Your task to perform on an android device: Open wifi settings Image 0: 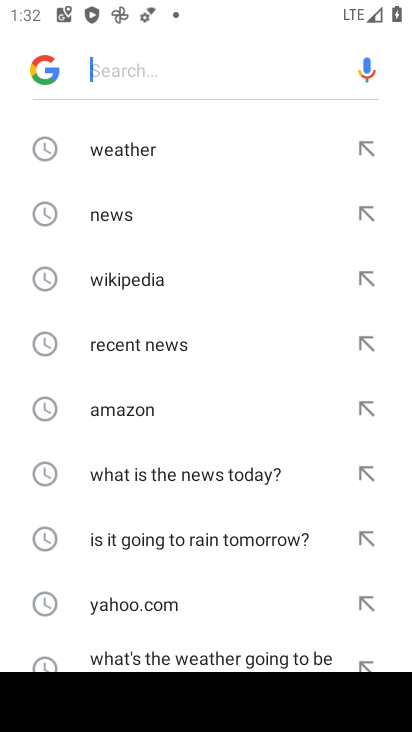
Step 0: press home button
Your task to perform on an android device: Open wifi settings Image 1: 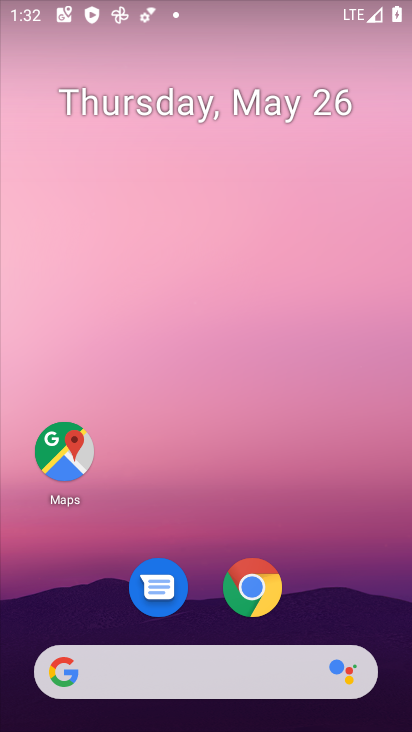
Step 1: drag from (361, 598) to (365, 77)
Your task to perform on an android device: Open wifi settings Image 2: 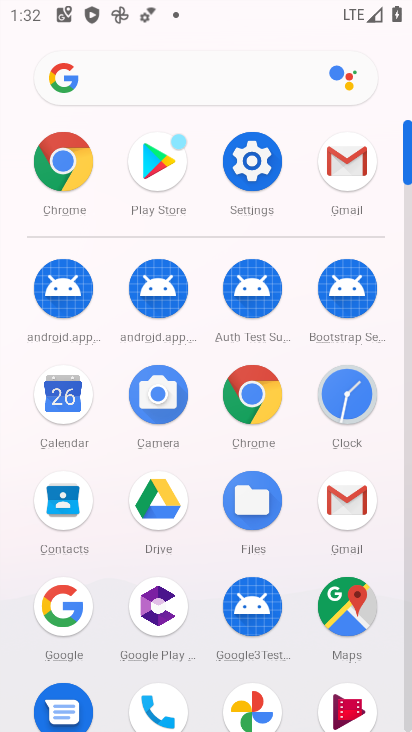
Step 2: click (257, 169)
Your task to perform on an android device: Open wifi settings Image 3: 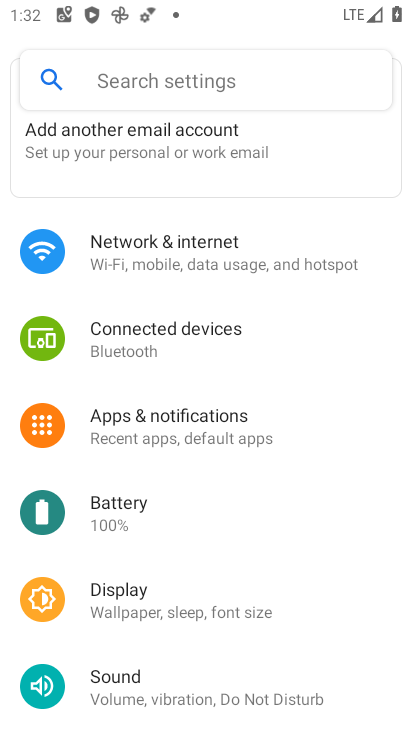
Step 3: drag from (333, 540) to (338, 423)
Your task to perform on an android device: Open wifi settings Image 4: 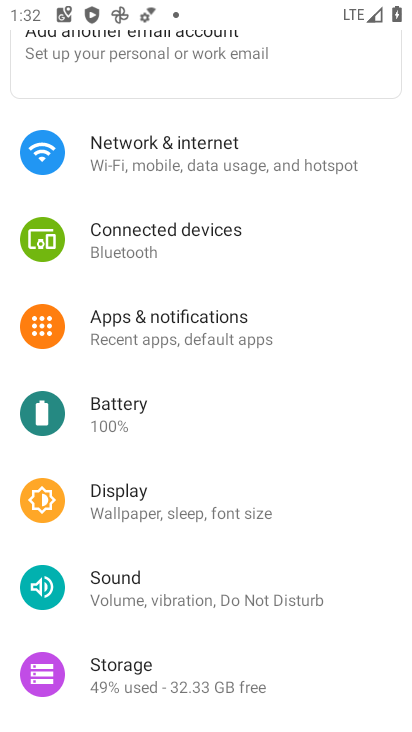
Step 4: drag from (343, 590) to (353, 423)
Your task to perform on an android device: Open wifi settings Image 5: 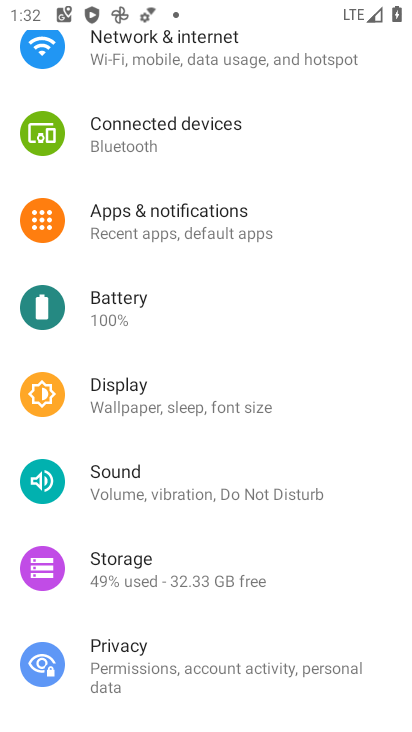
Step 5: drag from (356, 603) to (371, 454)
Your task to perform on an android device: Open wifi settings Image 6: 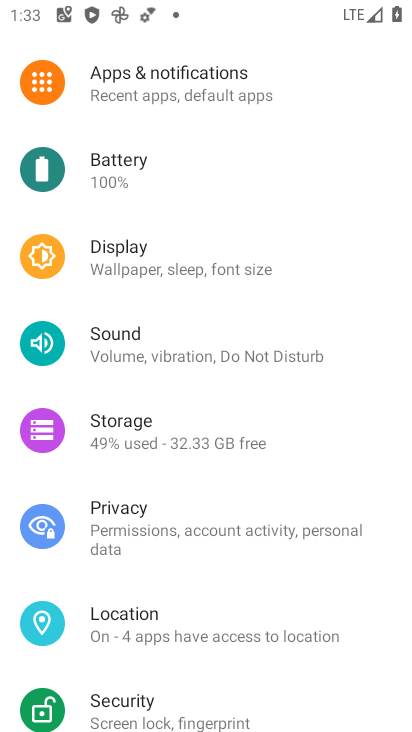
Step 6: drag from (371, 648) to (377, 505)
Your task to perform on an android device: Open wifi settings Image 7: 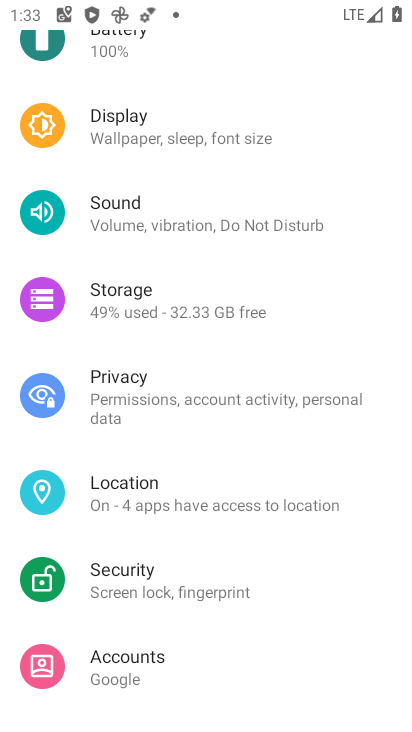
Step 7: drag from (381, 618) to (372, 487)
Your task to perform on an android device: Open wifi settings Image 8: 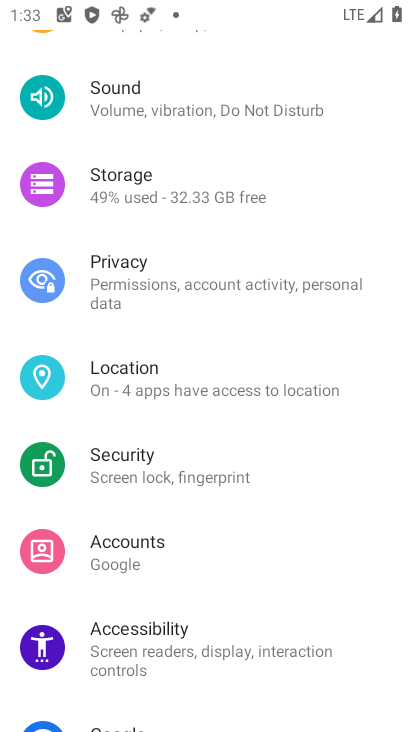
Step 8: drag from (355, 587) to (350, 413)
Your task to perform on an android device: Open wifi settings Image 9: 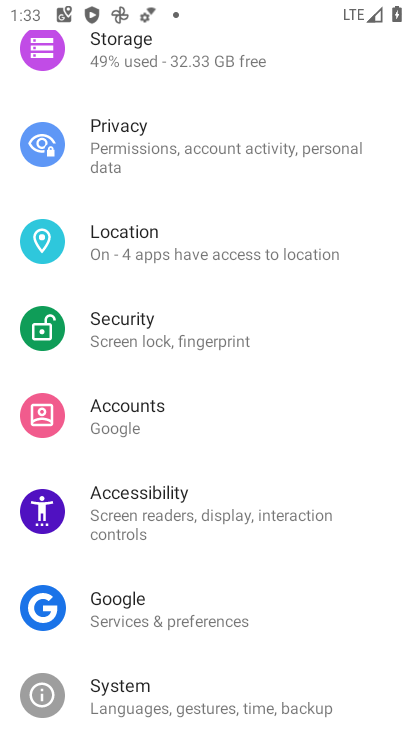
Step 9: drag from (363, 594) to (342, 458)
Your task to perform on an android device: Open wifi settings Image 10: 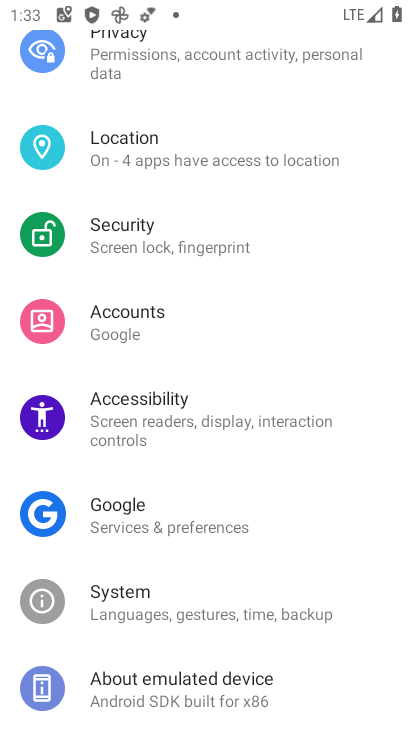
Step 10: drag from (347, 609) to (348, 461)
Your task to perform on an android device: Open wifi settings Image 11: 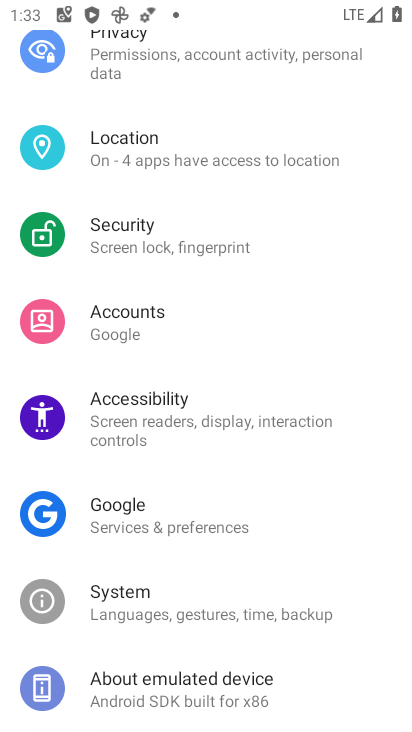
Step 11: drag from (362, 345) to (358, 435)
Your task to perform on an android device: Open wifi settings Image 12: 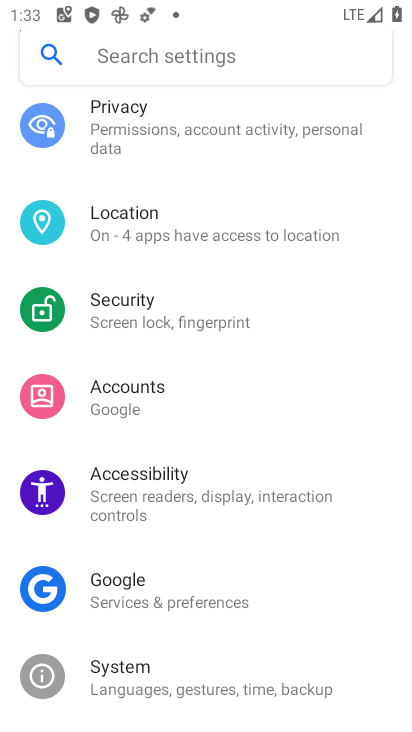
Step 12: drag from (361, 318) to (361, 419)
Your task to perform on an android device: Open wifi settings Image 13: 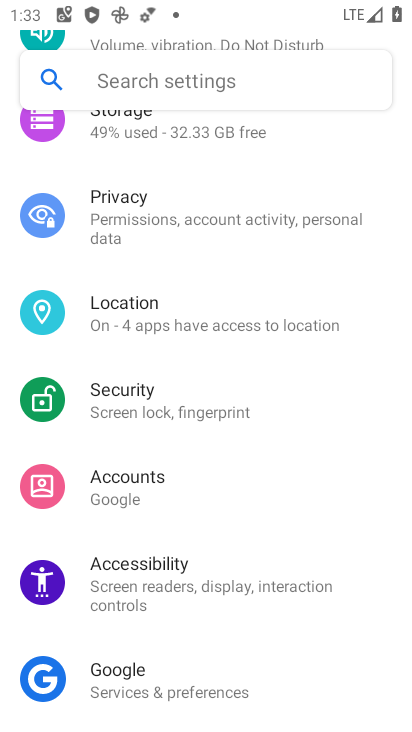
Step 13: drag from (361, 295) to (360, 381)
Your task to perform on an android device: Open wifi settings Image 14: 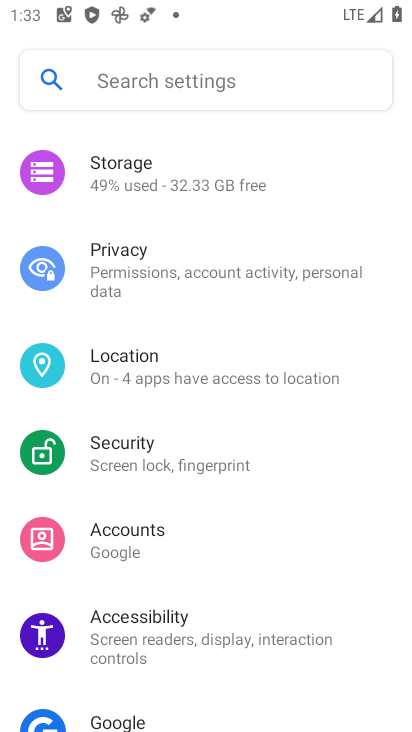
Step 14: drag from (366, 244) to (368, 371)
Your task to perform on an android device: Open wifi settings Image 15: 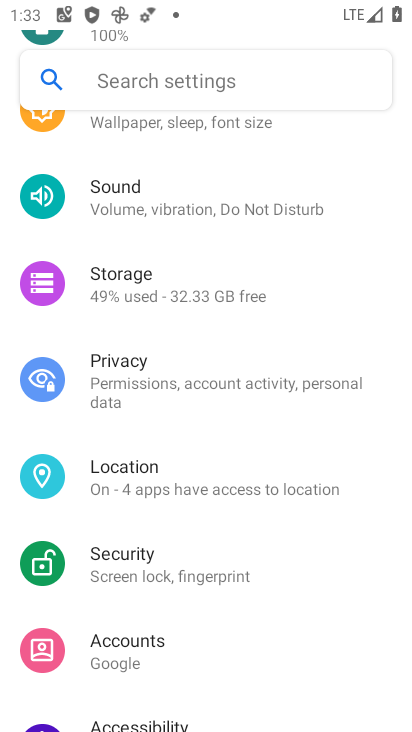
Step 15: drag from (369, 250) to (358, 361)
Your task to perform on an android device: Open wifi settings Image 16: 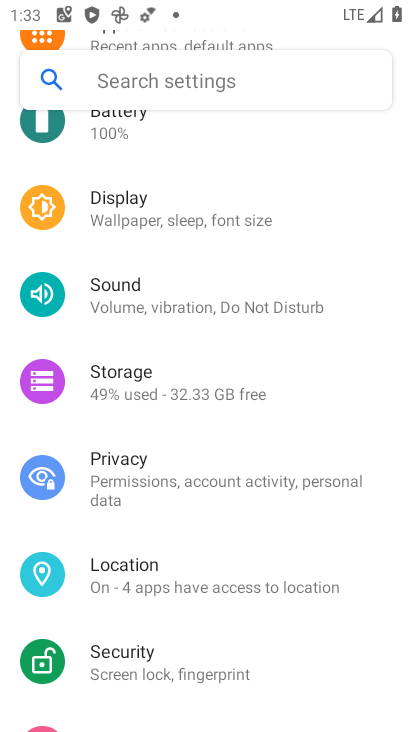
Step 16: drag from (361, 244) to (344, 363)
Your task to perform on an android device: Open wifi settings Image 17: 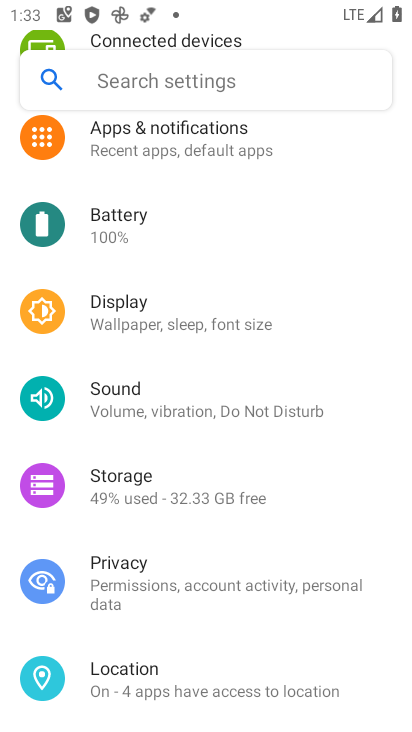
Step 17: drag from (339, 226) to (335, 329)
Your task to perform on an android device: Open wifi settings Image 18: 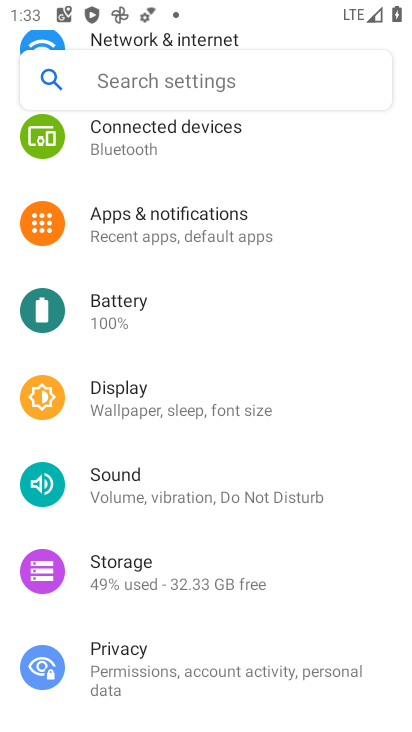
Step 18: drag from (330, 210) to (333, 307)
Your task to perform on an android device: Open wifi settings Image 19: 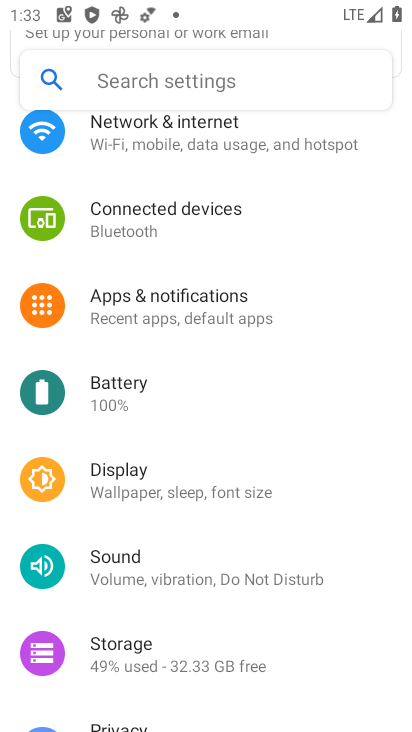
Step 19: drag from (329, 207) to (325, 331)
Your task to perform on an android device: Open wifi settings Image 20: 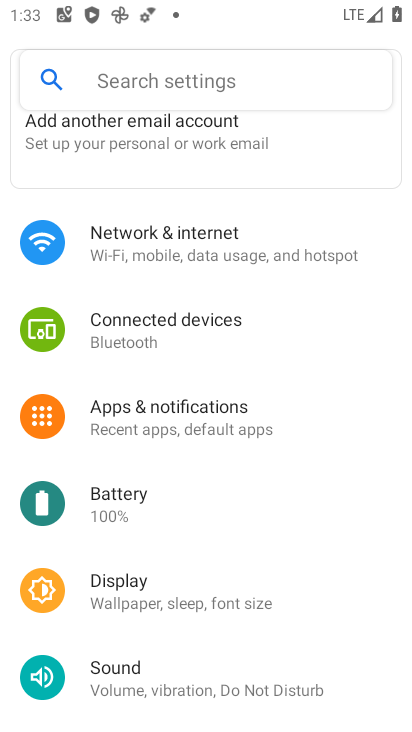
Step 20: drag from (318, 198) to (319, 342)
Your task to perform on an android device: Open wifi settings Image 21: 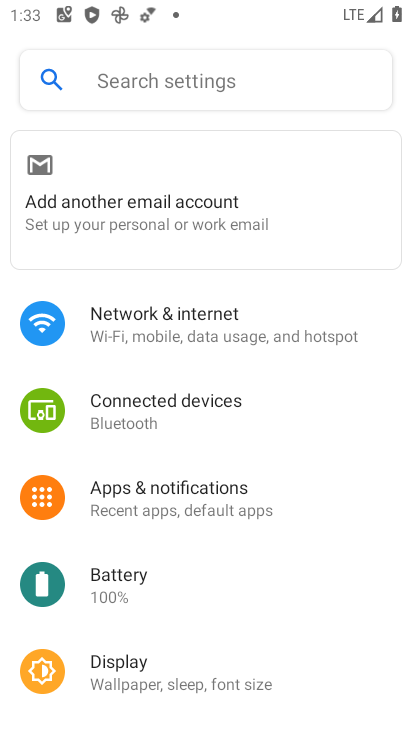
Step 21: drag from (318, 193) to (320, 452)
Your task to perform on an android device: Open wifi settings Image 22: 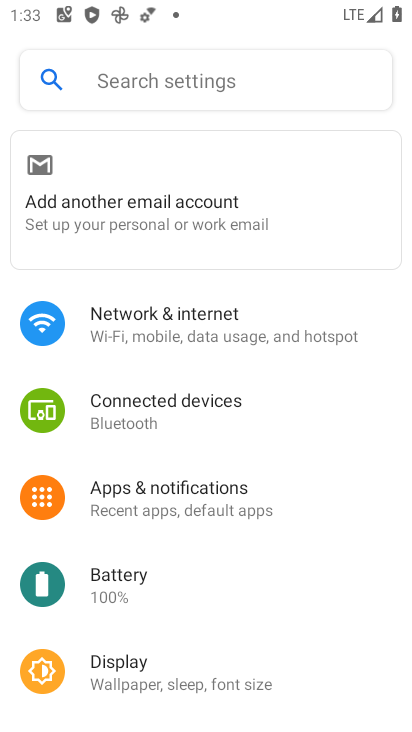
Step 22: click (239, 320)
Your task to perform on an android device: Open wifi settings Image 23: 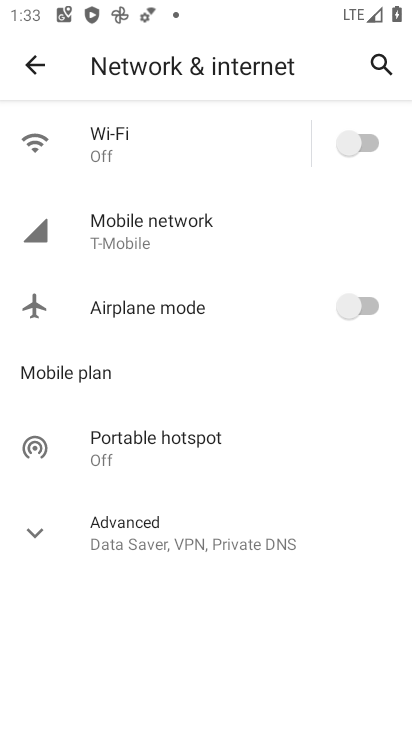
Step 23: click (187, 146)
Your task to perform on an android device: Open wifi settings Image 24: 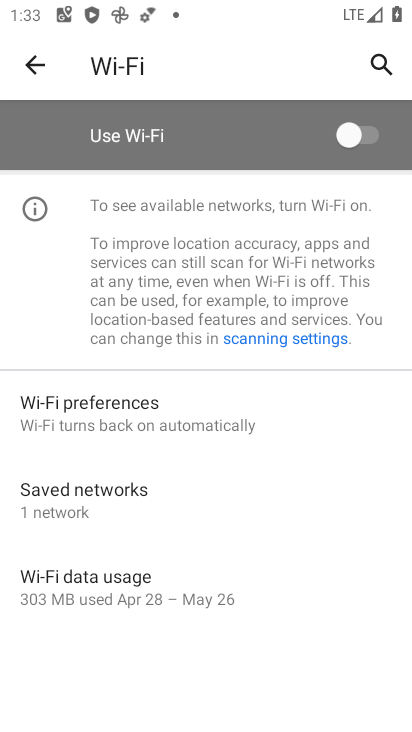
Step 24: task complete